Your task to perform on an android device: Go to wifi settings Image 0: 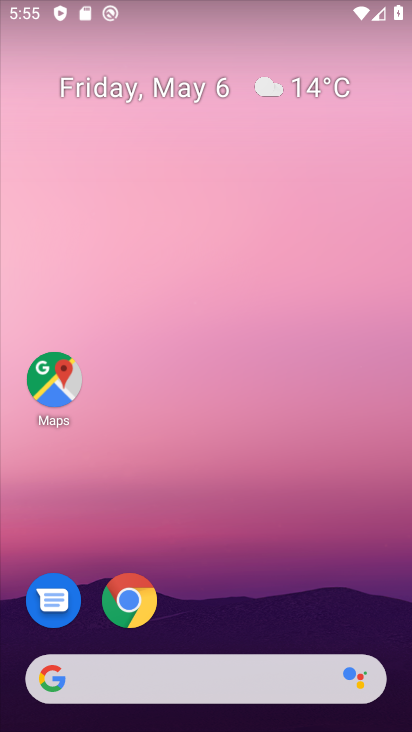
Step 0: drag from (220, 610) to (175, 16)
Your task to perform on an android device: Go to wifi settings Image 1: 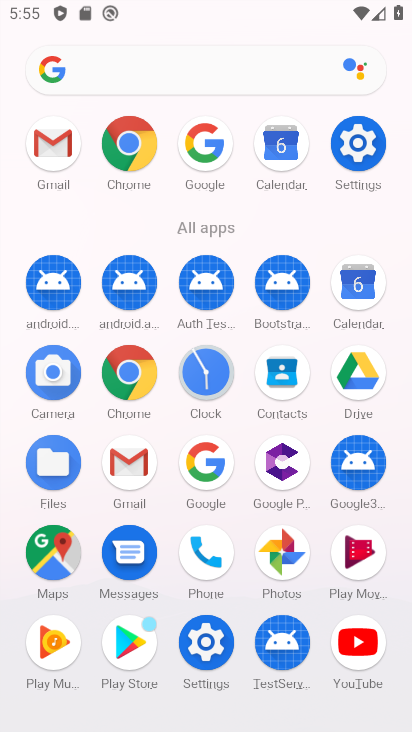
Step 1: click (360, 144)
Your task to perform on an android device: Go to wifi settings Image 2: 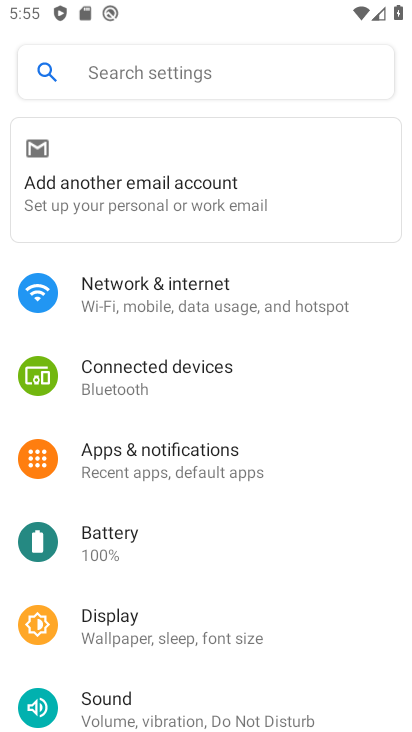
Step 2: click (164, 296)
Your task to perform on an android device: Go to wifi settings Image 3: 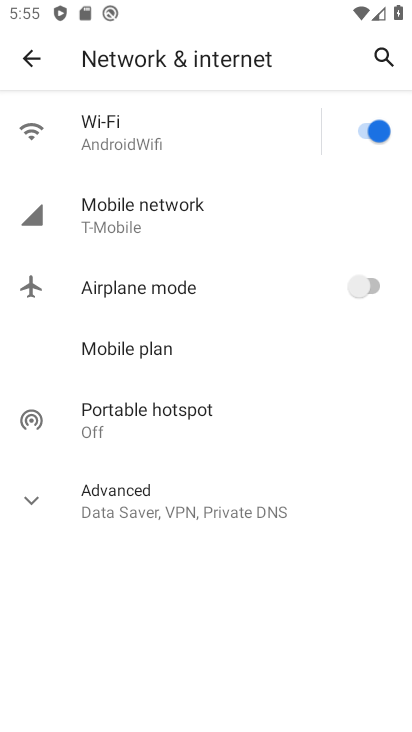
Step 3: click (108, 133)
Your task to perform on an android device: Go to wifi settings Image 4: 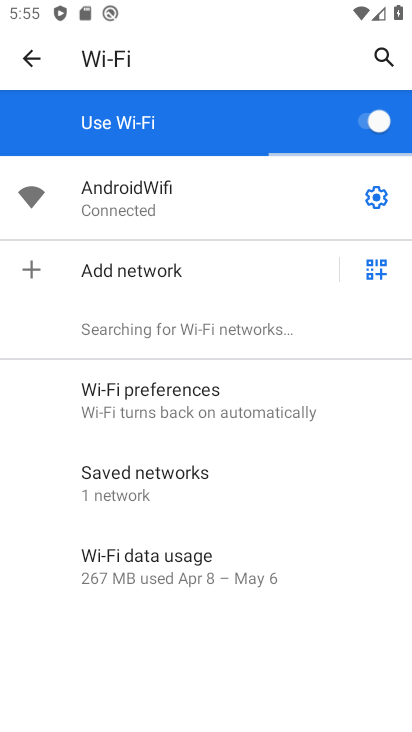
Step 4: click (369, 200)
Your task to perform on an android device: Go to wifi settings Image 5: 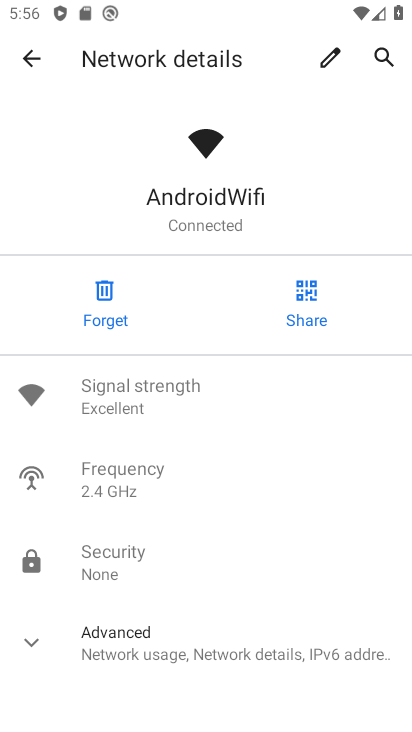
Step 5: task complete